Your task to perform on an android device: Search for seafood restaurants on Google Maps Image 0: 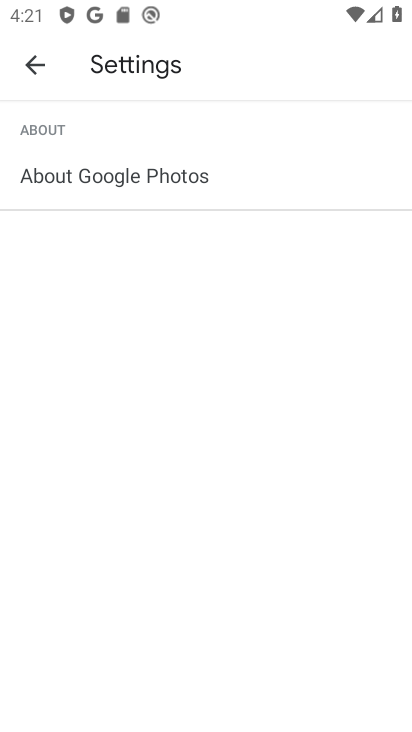
Step 0: press home button
Your task to perform on an android device: Search for seafood restaurants on Google Maps Image 1: 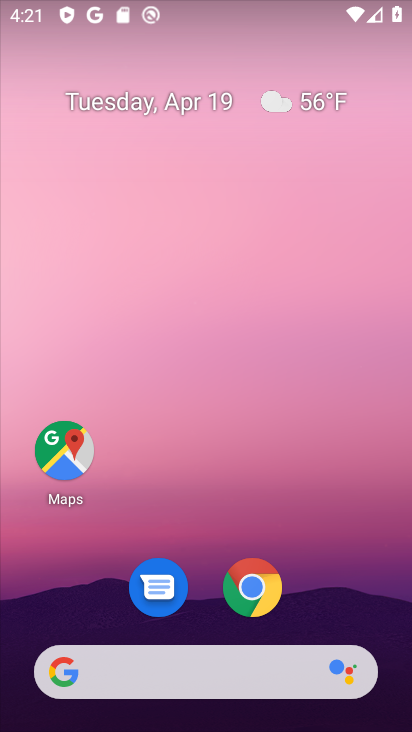
Step 1: drag from (214, 720) to (214, 51)
Your task to perform on an android device: Search for seafood restaurants on Google Maps Image 2: 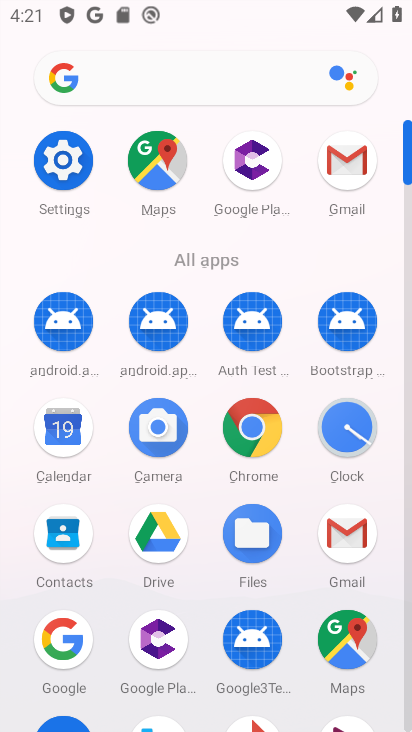
Step 2: click (345, 634)
Your task to perform on an android device: Search for seafood restaurants on Google Maps Image 3: 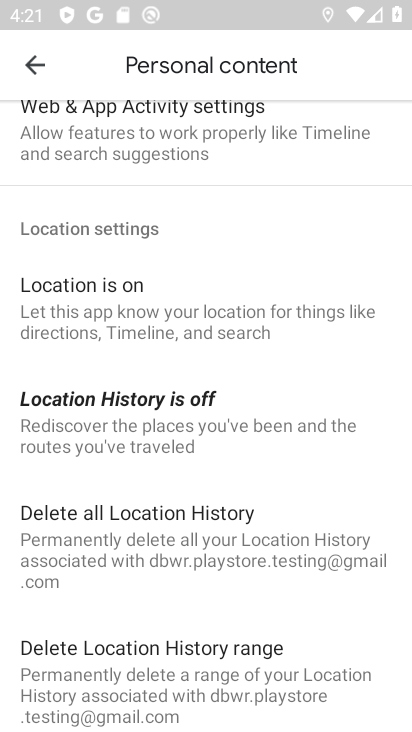
Step 3: click (39, 62)
Your task to perform on an android device: Search for seafood restaurants on Google Maps Image 4: 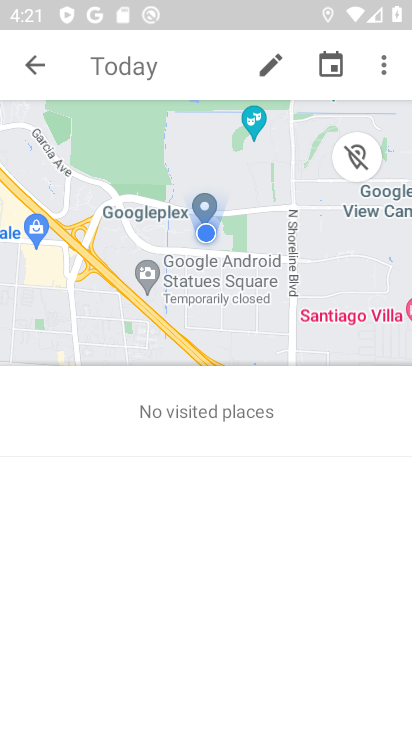
Step 4: click (35, 64)
Your task to perform on an android device: Search for seafood restaurants on Google Maps Image 5: 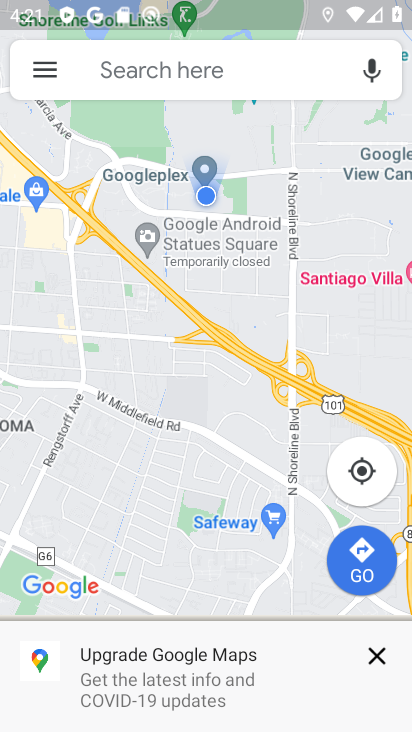
Step 5: click (152, 78)
Your task to perform on an android device: Search for seafood restaurants on Google Maps Image 6: 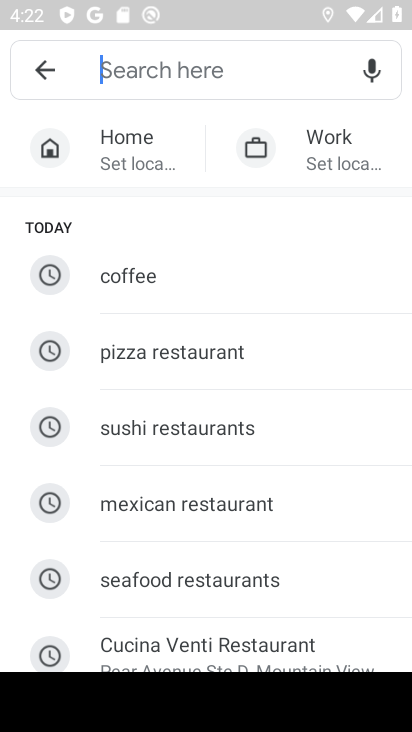
Step 6: type "seafood restaurants"
Your task to perform on an android device: Search for seafood restaurants on Google Maps Image 7: 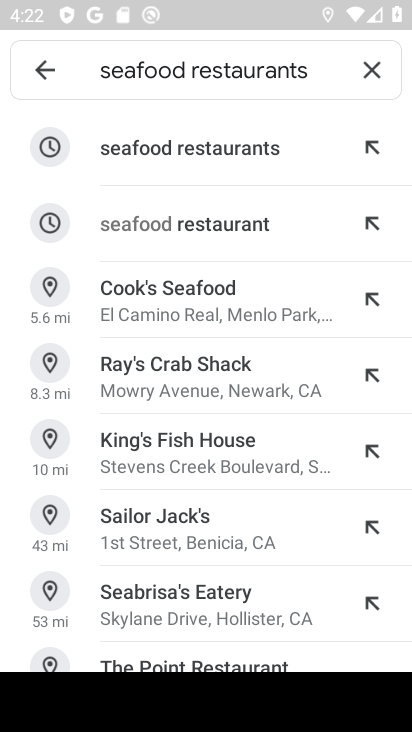
Step 7: click (239, 149)
Your task to perform on an android device: Search for seafood restaurants on Google Maps Image 8: 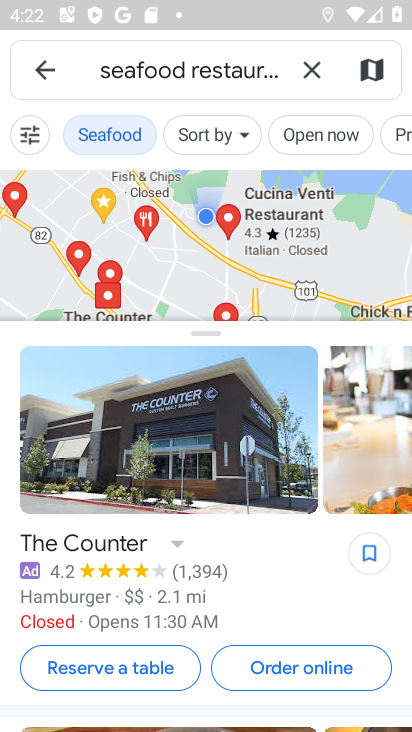
Step 8: task complete